Your task to perform on an android device: turn on showing notifications on the lock screen Image 0: 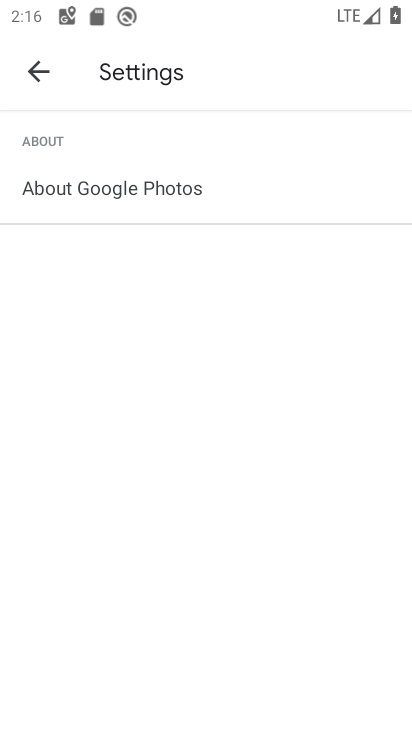
Step 0: press home button
Your task to perform on an android device: turn on showing notifications on the lock screen Image 1: 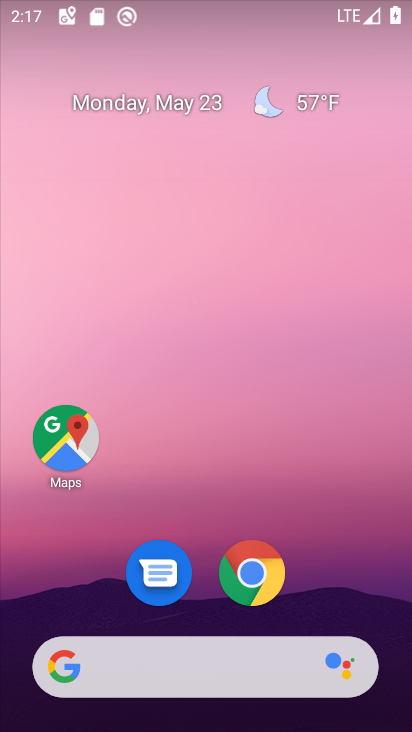
Step 1: drag from (345, 572) to (288, 111)
Your task to perform on an android device: turn on showing notifications on the lock screen Image 2: 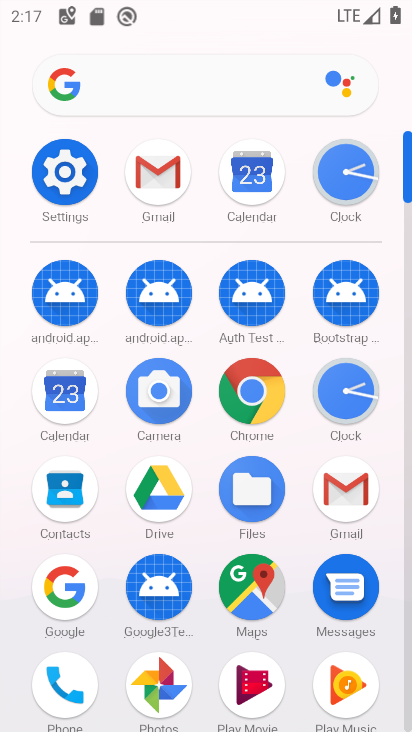
Step 2: click (65, 170)
Your task to perform on an android device: turn on showing notifications on the lock screen Image 3: 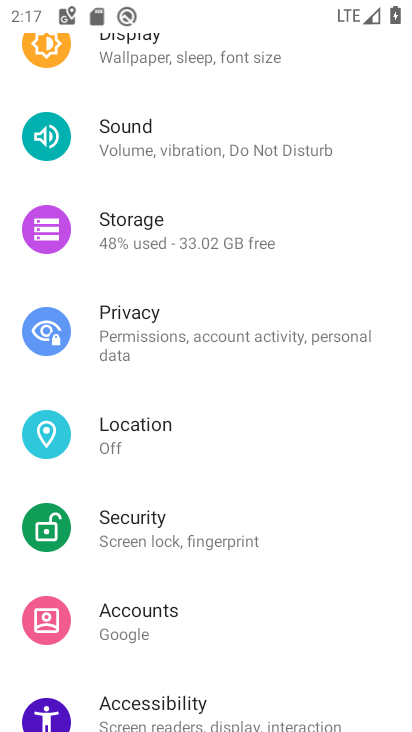
Step 3: drag from (267, 145) to (262, 415)
Your task to perform on an android device: turn on showing notifications on the lock screen Image 4: 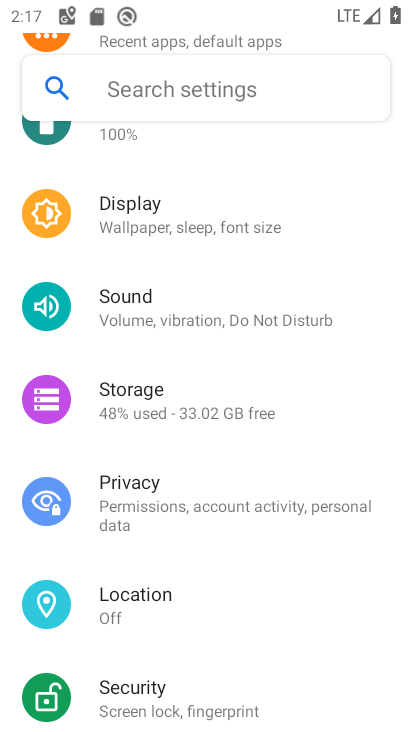
Step 4: drag from (314, 187) to (312, 496)
Your task to perform on an android device: turn on showing notifications on the lock screen Image 5: 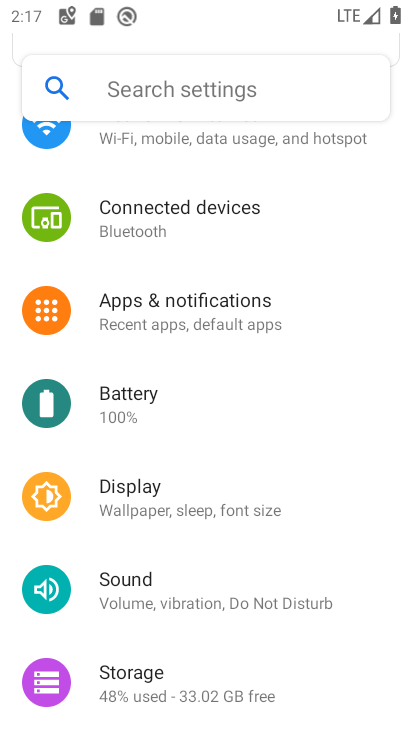
Step 5: click (231, 305)
Your task to perform on an android device: turn on showing notifications on the lock screen Image 6: 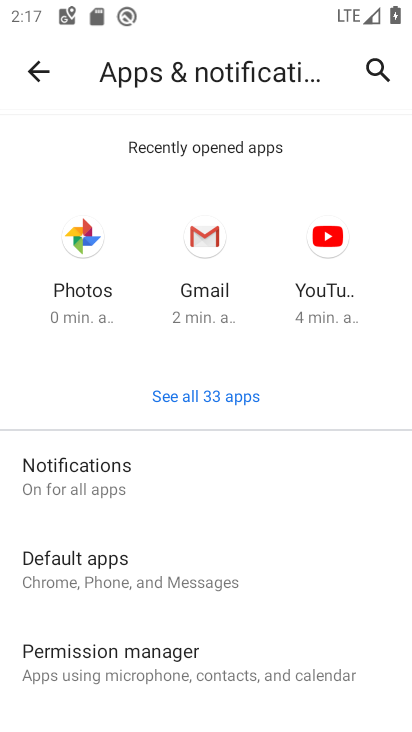
Step 6: drag from (305, 626) to (288, 346)
Your task to perform on an android device: turn on showing notifications on the lock screen Image 7: 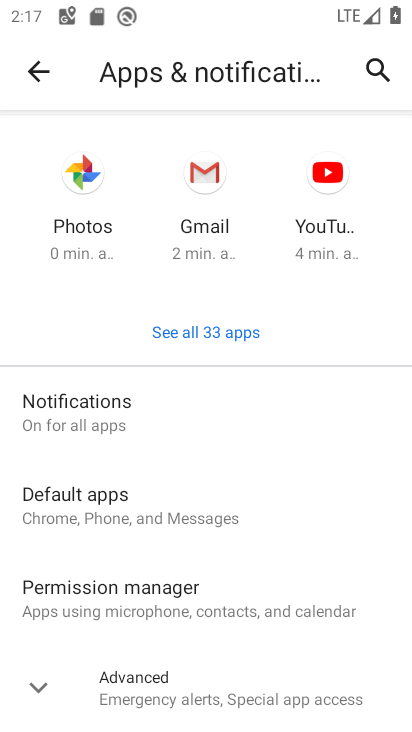
Step 7: click (115, 398)
Your task to perform on an android device: turn on showing notifications on the lock screen Image 8: 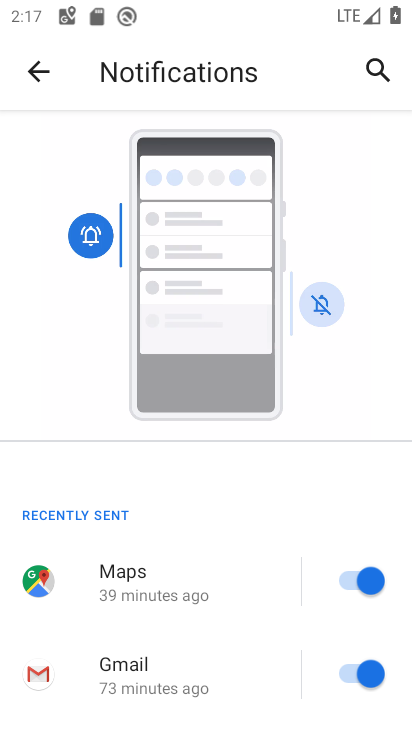
Step 8: drag from (239, 633) to (217, 123)
Your task to perform on an android device: turn on showing notifications on the lock screen Image 9: 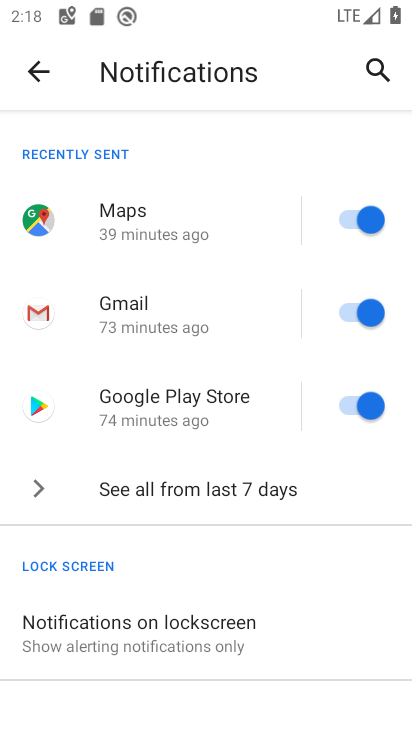
Step 9: click (136, 632)
Your task to perform on an android device: turn on showing notifications on the lock screen Image 10: 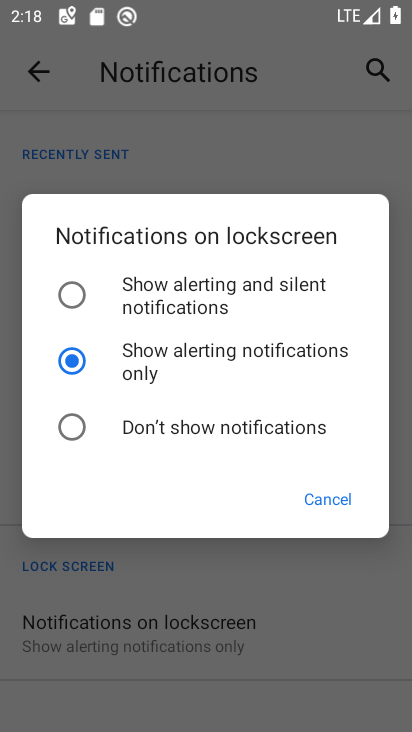
Step 10: click (80, 288)
Your task to perform on an android device: turn on showing notifications on the lock screen Image 11: 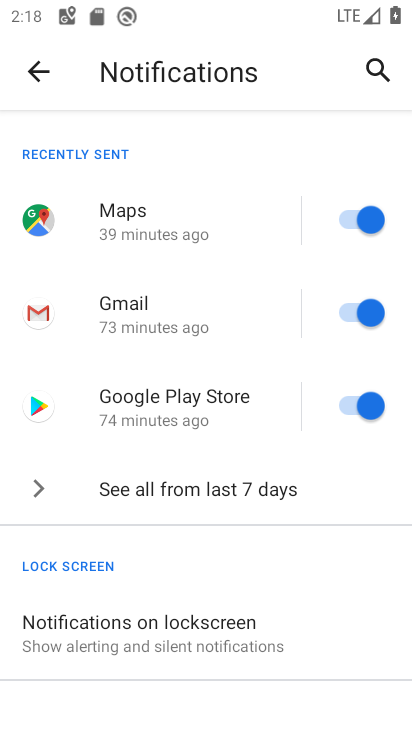
Step 11: task complete